Your task to perform on an android device: Go to Android settings Image 0: 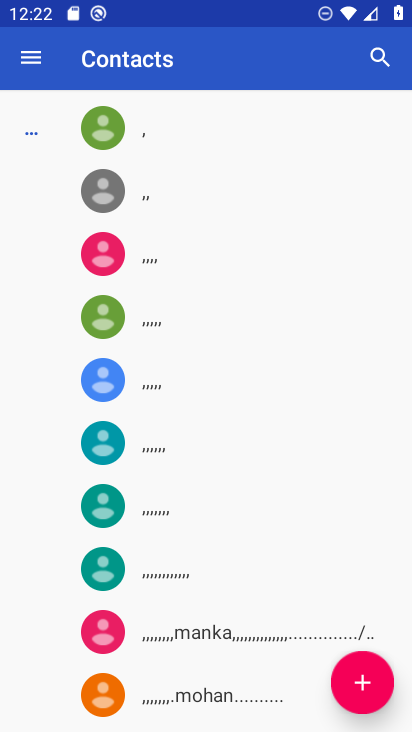
Step 0: press home button
Your task to perform on an android device: Go to Android settings Image 1: 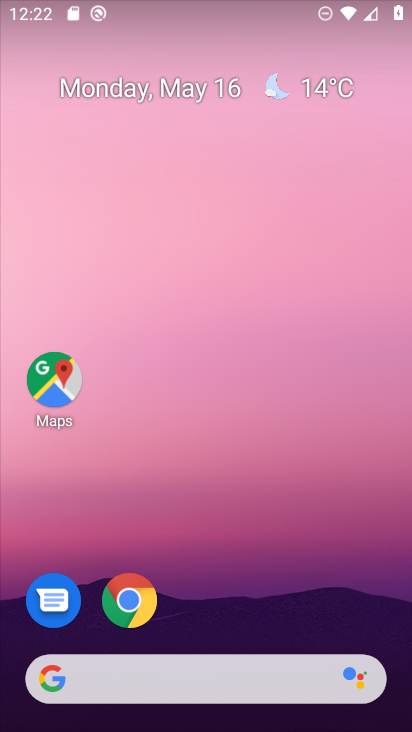
Step 1: drag from (387, 639) to (282, 37)
Your task to perform on an android device: Go to Android settings Image 2: 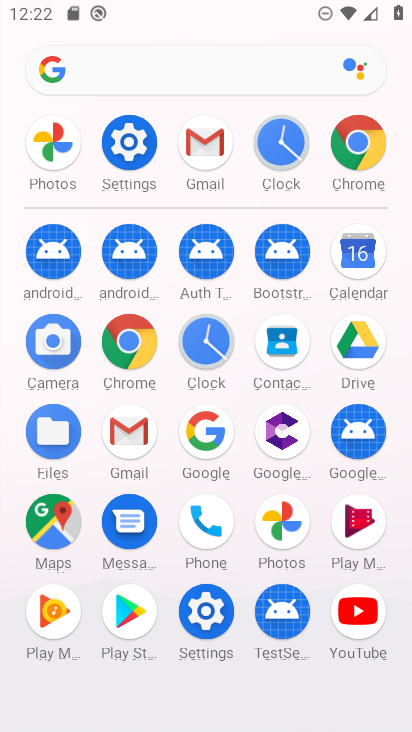
Step 2: click (207, 612)
Your task to perform on an android device: Go to Android settings Image 3: 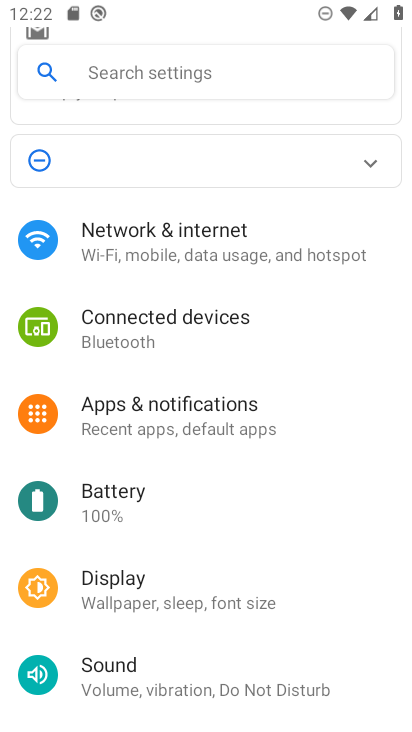
Step 3: drag from (349, 683) to (304, 311)
Your task to perform on an android device: Go to Android settings Image 4: 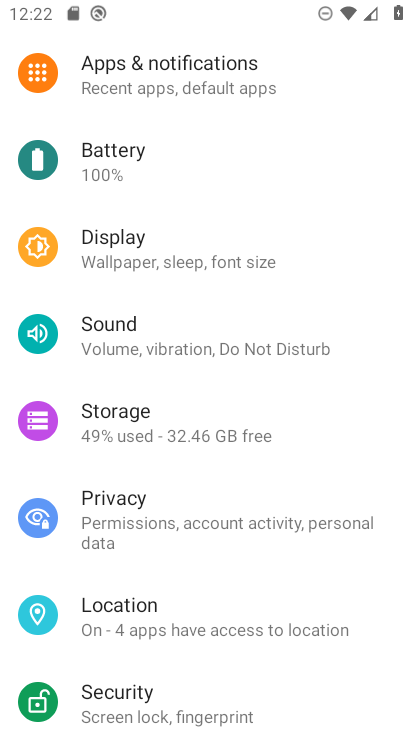
Step 4: drag from (375, 643) to (367, 227)
Your task to perform on an android device: Go to Android settings Image 5: 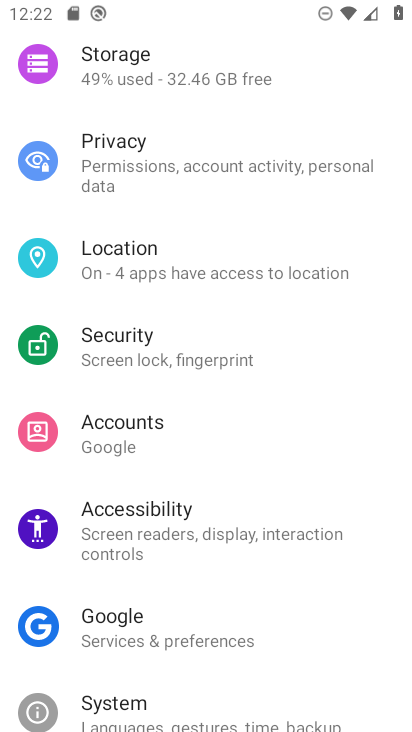
Step 5: drag from (325, 673) to (358, 215)
Your task to perform on an android device: Go to Android settings Image 6: 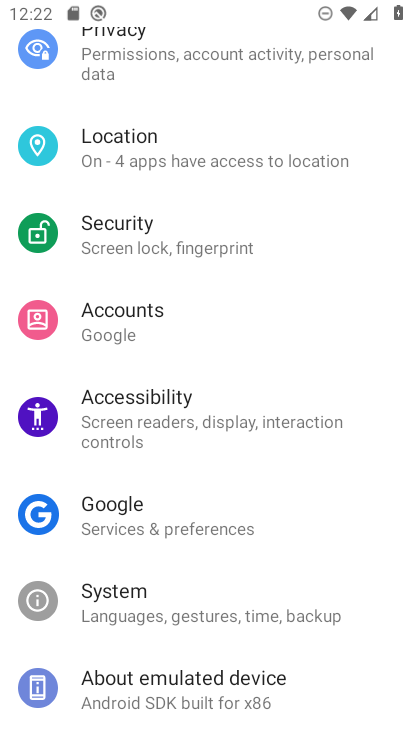
Step 6: click (138, 676)
Your task to perform on an android device: Go to Android settings Image 7: 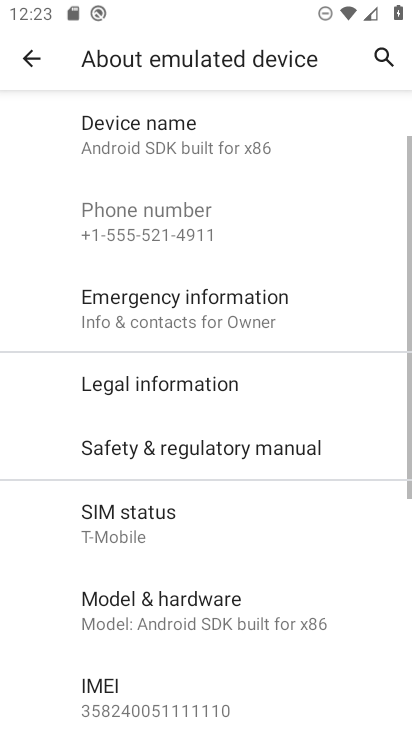
Step 7: task complete